Your task to perform on an android device: set default search engine in the chrome app Image 0: 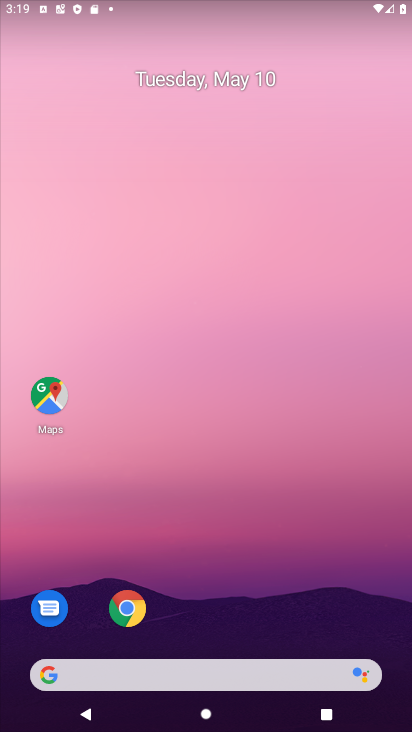
Step 0: click (125, 608)
Your task to perform on an android device: set default search engine in the chrome app Image 1: 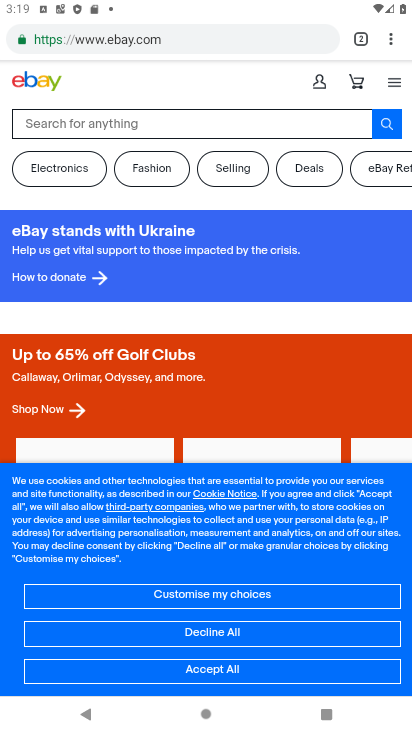
Step 1: click (390, 37)
Your task to perform on an android device: set default search engine in the chrome app Image 2: 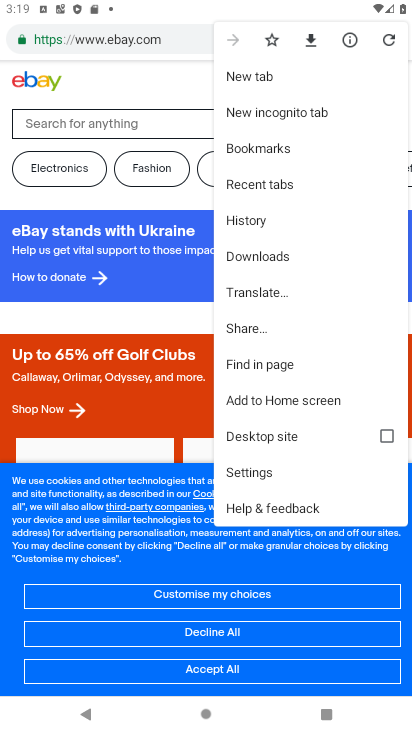
Step 2: click (254, 466)
Your task to perform on an android device: set default search engine in the chrome app Image 3: 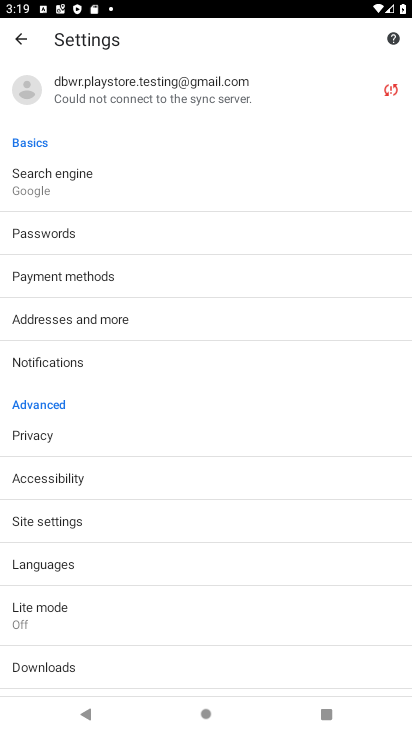
Step 3: click (41, 174)
Your task to perform on an android device: set default search engine in the chrome app Image 4: 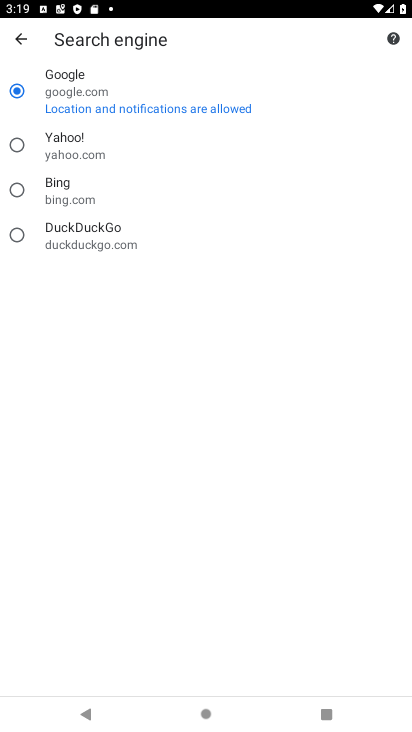
Step 4: click (16, 139)
Your task to perform on an android device: set default search engine in the chrome app Image 5: 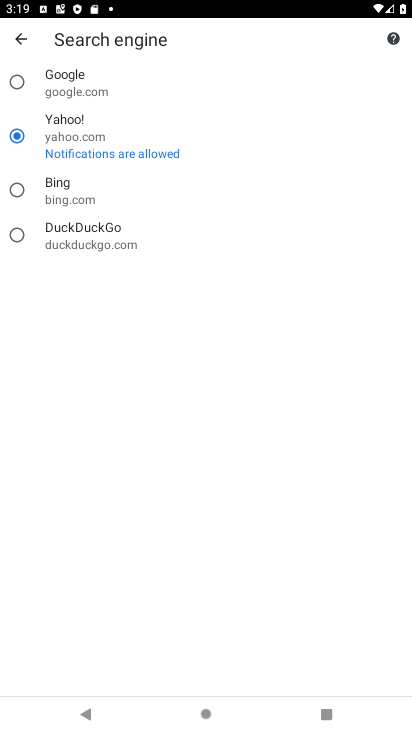
Step 5: task complete